Your task to perform on an android device: turn on priority inbox in the gmail app Image 0: 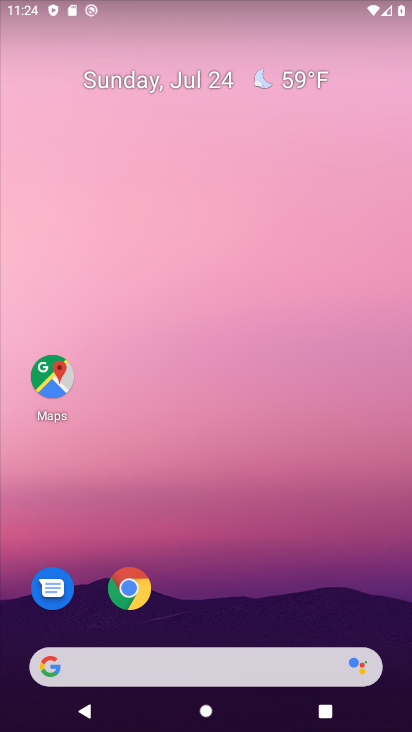
Step 0: drag from (386, 608) to (4, 49)
Your task to perform on an android device: turn on priority inbox in the gmail app Image 1: 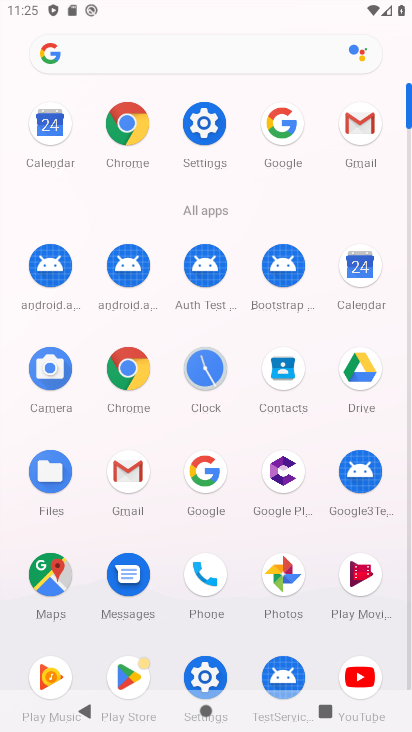
Step 1: click (121, 474)
Your task to perform on an android device: turn on priority inbox in the gmail app Image 2: 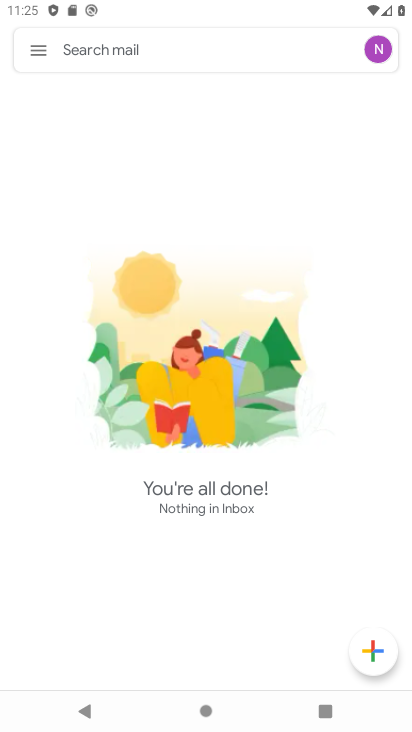
Step 2: click (43, 51)
Your task to perform on an android device: turn on priority inbox in the gmail app Image 3: 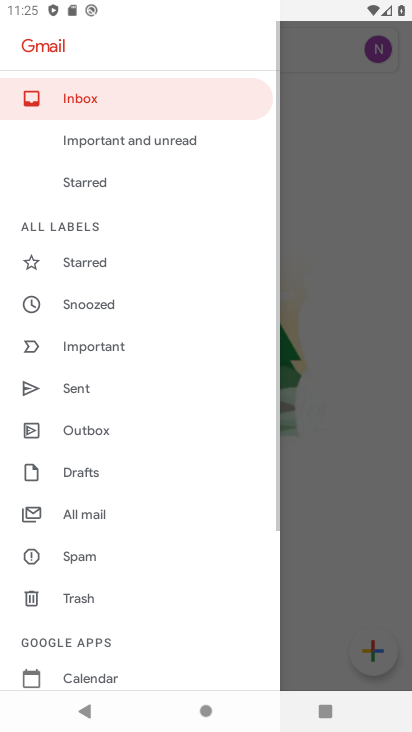
Step 3: drag from (77, 641) to (125, 47)
Your task to perform on an android device: turn on priority inbox in the gmail app Image 4: 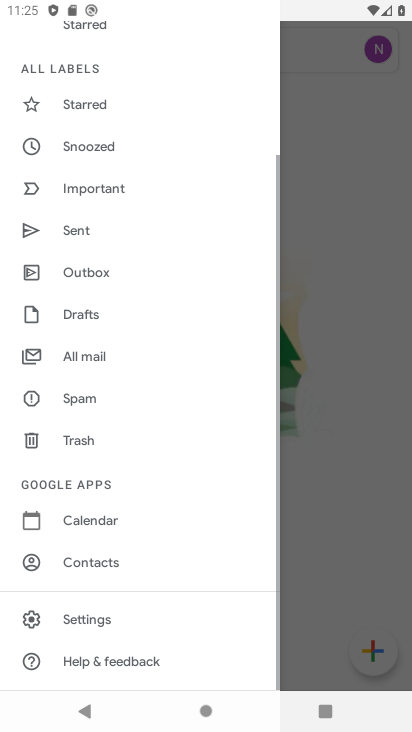
Step 4: click (73, 624)
Your task to perform on an android device: turn on priority inbox in the gmail app Image 5: 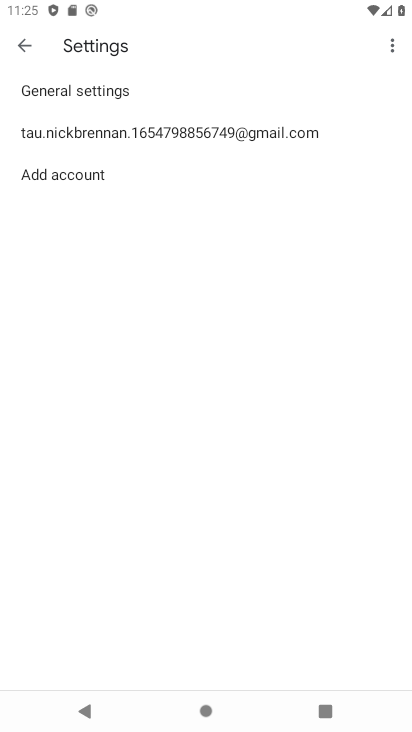
Step 5: click (124, 140)
Your task to perform on an android device: turn on priority inbox in the gmail app Image 6: 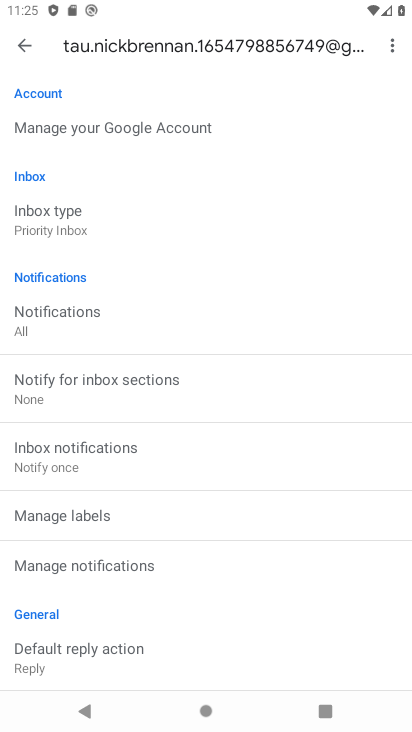
Step 6: click (67, 243)
Your task to perform on an android device: turn on priority inbox in the gmail app Image 7: 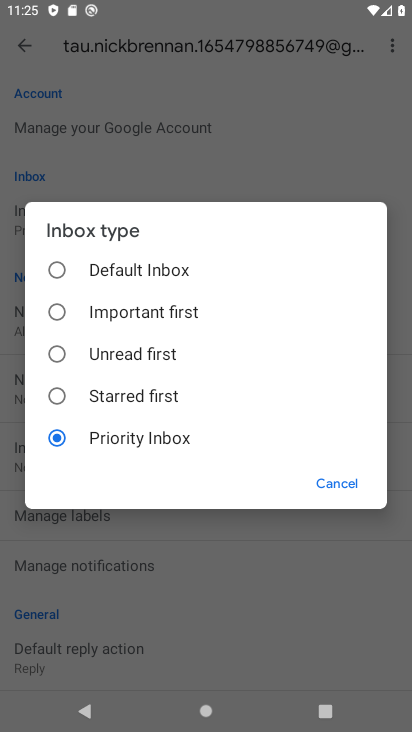
Step 7: task complete